Your task to perform on an android device: Is it going to rain this weekend? Image 0: 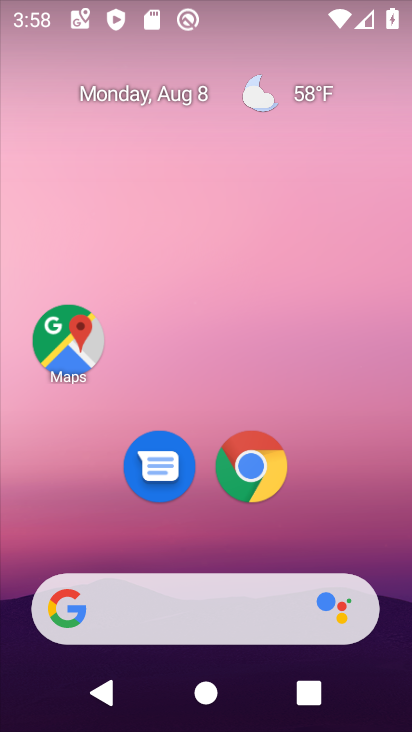
Step 0: drag from (247, 472) to (245, 153)
Your task to perform on an android device: Is it going to rain this weekend? Image 1: 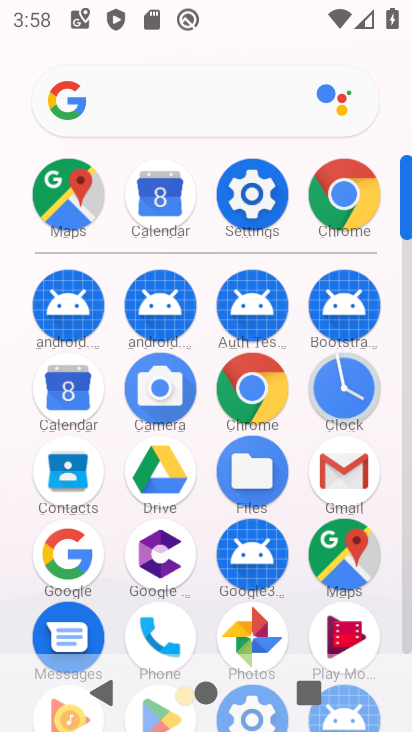
Step 1: click (325, 192)
Your task to perform on an android device: Is it going to rain this weekend? Image 2: 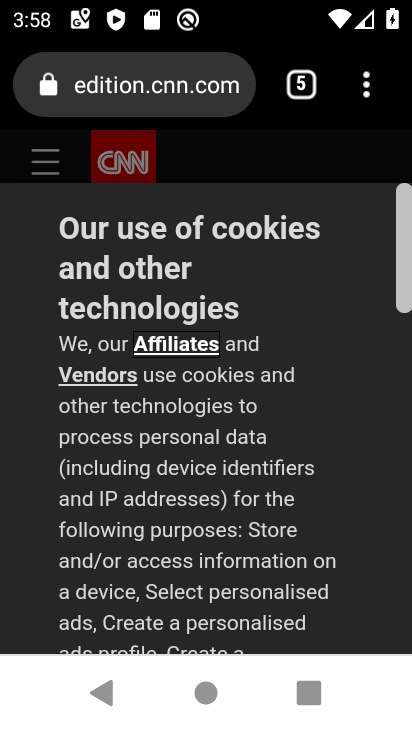
Step 2: click (372, 92)
Your task to perform on an android device: Is it going to rain this weekend? Image 3: 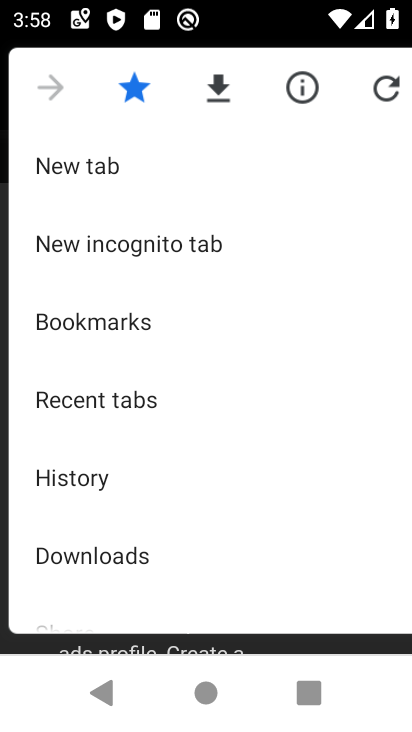
Step 3: click (101, 152)
Your task to perform on an android device: Is it going to rain this weekend? Image 4: 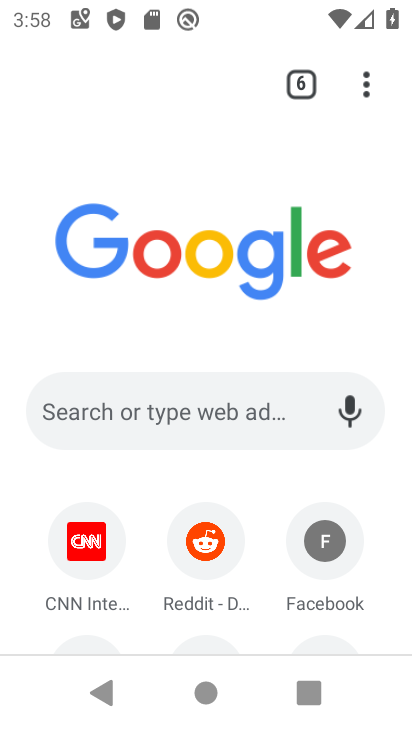
Step 4: click (167, 389)
Your task to perform on an android device: Is it going to rain this weekend? Image 5: 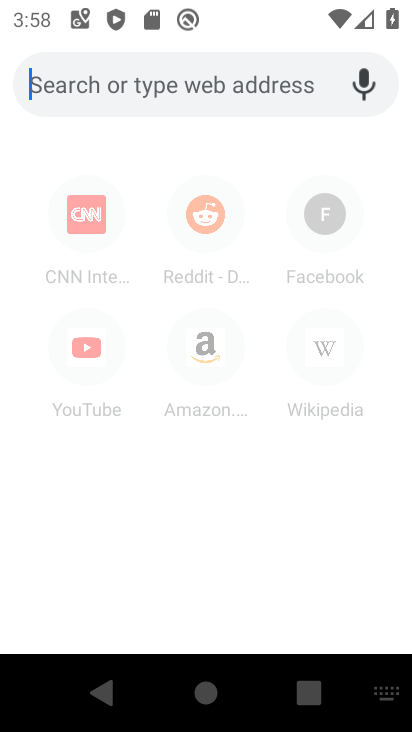
Step 5: type "Is it going to rain this weekend? "
Your task to perform on an android device: Is it going to rain this weekend? Image 6: 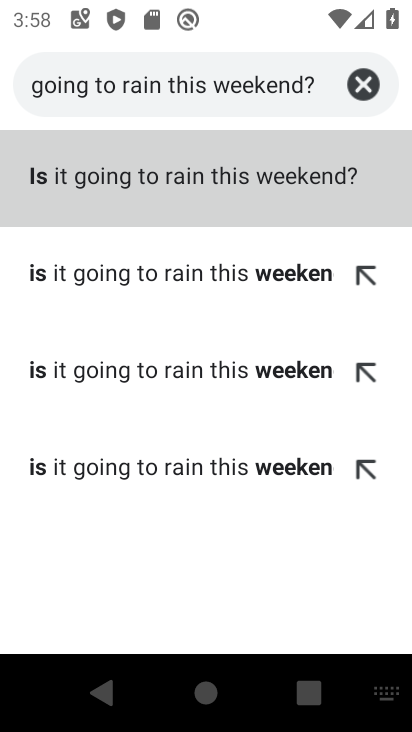
Step 6: click (190, 172)
Your task to perform on an android device: Is it going to rain this weekend? Image 7: 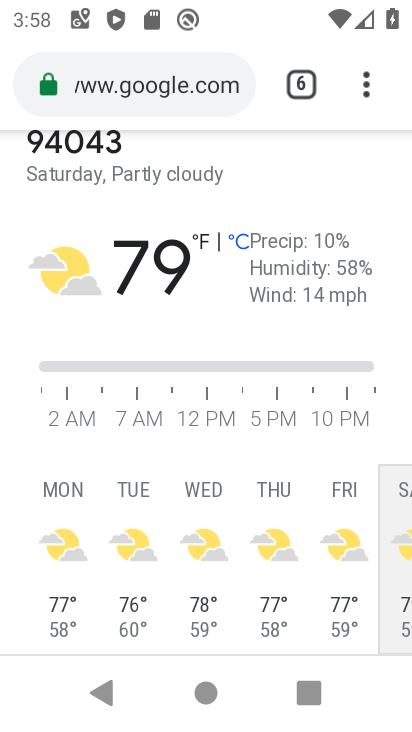
Step 7: task complete